Your task to perform on an android device: check android version Image 0: 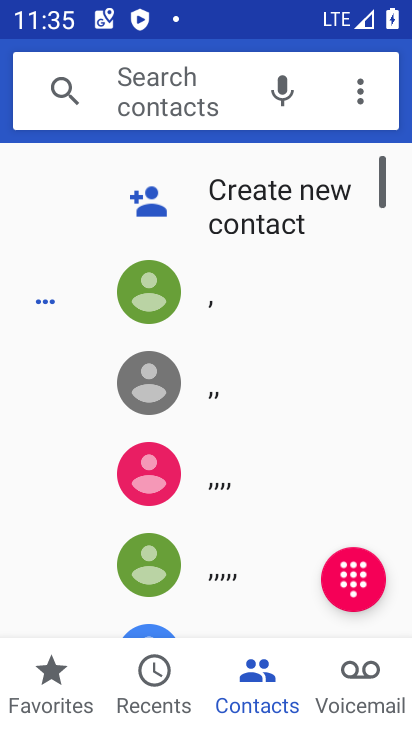
Step 0: press home button
Your task to perform on an android device: check android version Image 1: 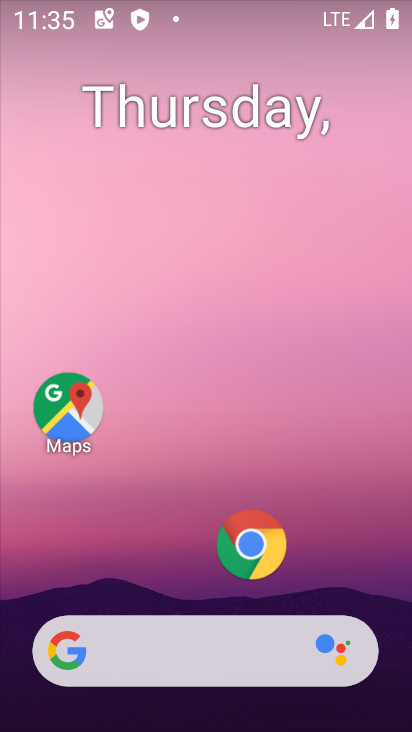
Step 1: drag from (199, 609) to (102, 10)
Your task to perform on an android device: check android version Image 2: 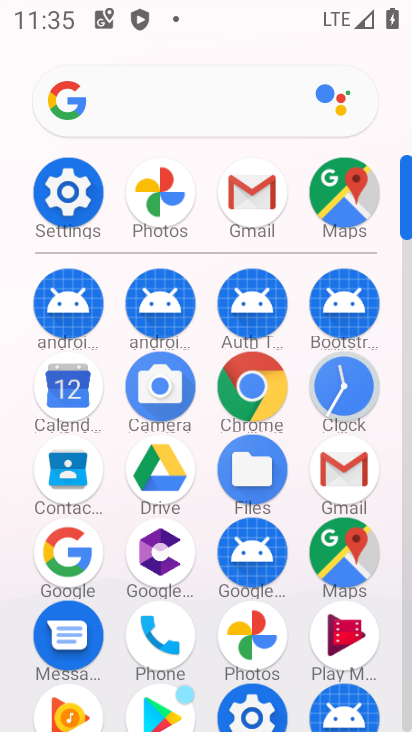
Step 2: click (77, 180)
Your task to perform on an android device: check android version Image 3: 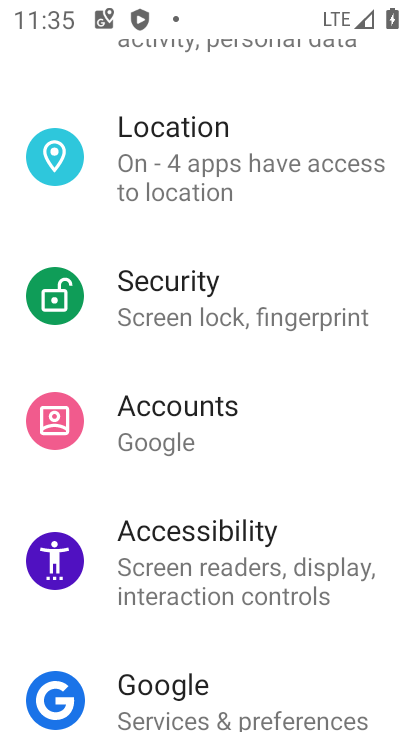
Step 3: drag from (204, 537) to (120, 14)
Your task to perform on an android device: check android version Image 4: 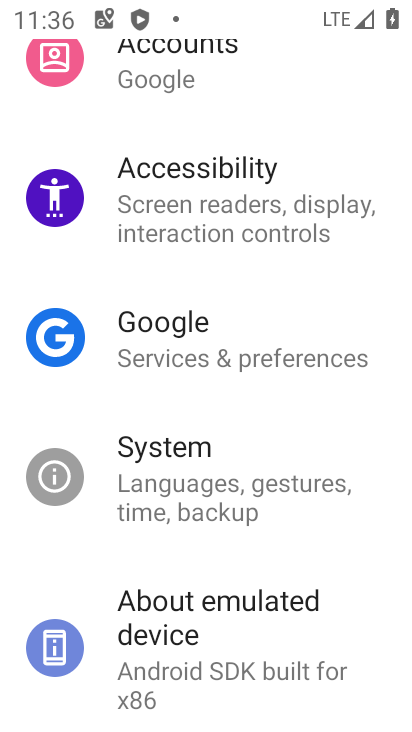
Step 4: click (227, 613)
Your task to perform on an android device: check android version Image 5: 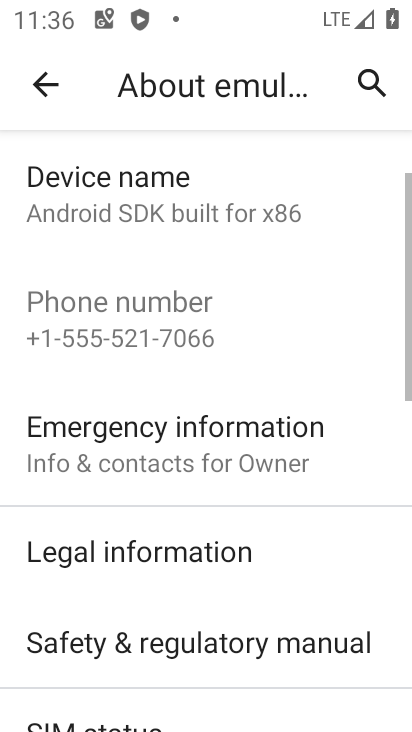
Step 5: drag from (225, 603) to (193, 131)
Your task to perform on an android device: check android version Image 6: 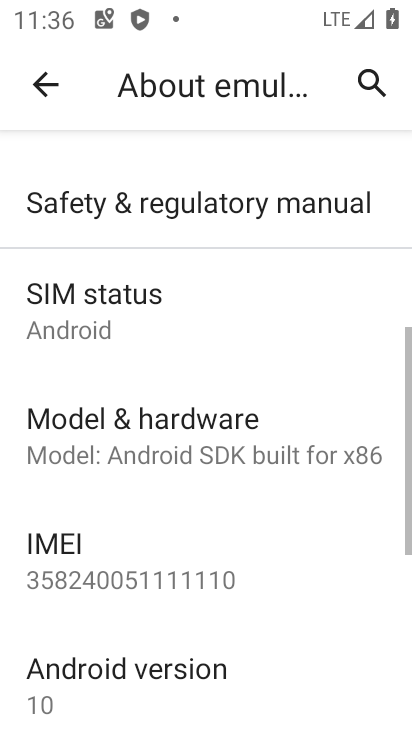
Step 6: click (115, 697)
Your task to perform on an android device: check android version Image 7: 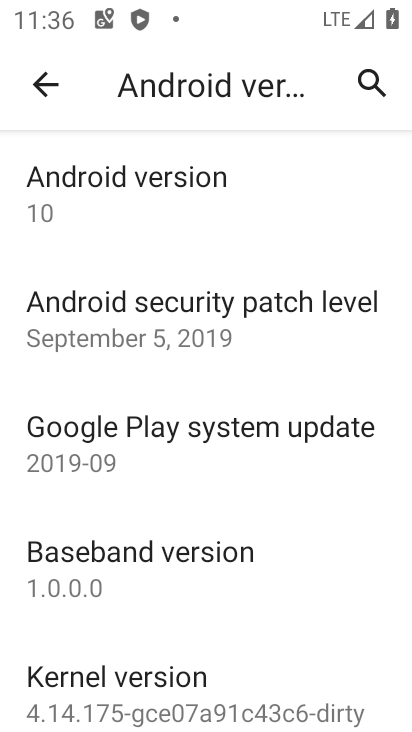
Step 7: click (97, 195)
Your task to perform on an android device: check android version Image 8: 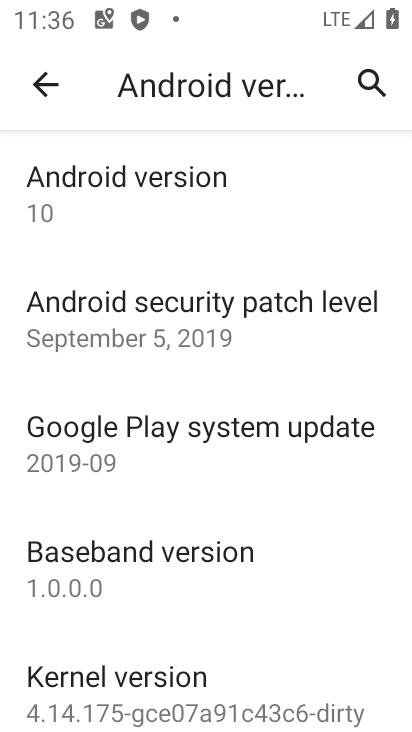
Step 8: task complete